Your task to perform on an android device: turn off priority inbox in the gmail app Image 0: 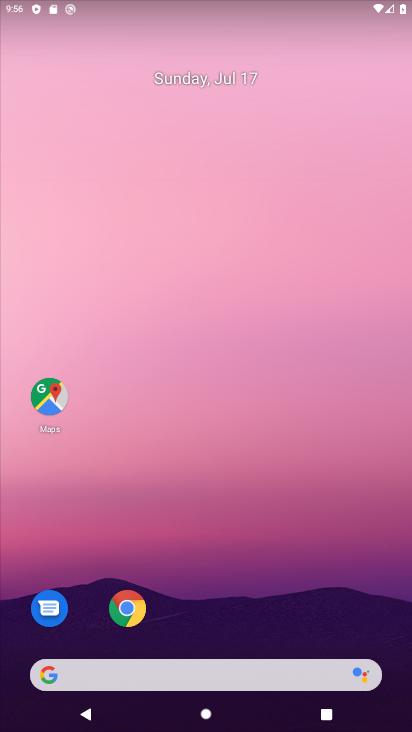
Step 0: drag from (243, 617) to (116, 8)
Your task to perform on an android device: turn off priority inbox in the gmail app Image 1: 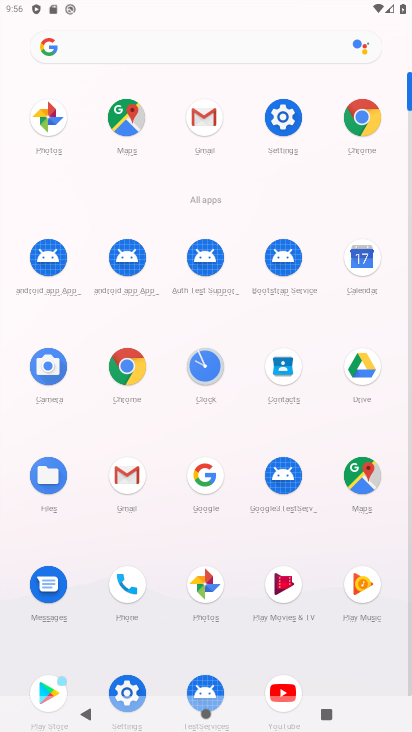
Step 1: click (117, 473)
Your task to perform on an android device: turn off priority inbox in the gmail app Image 2: 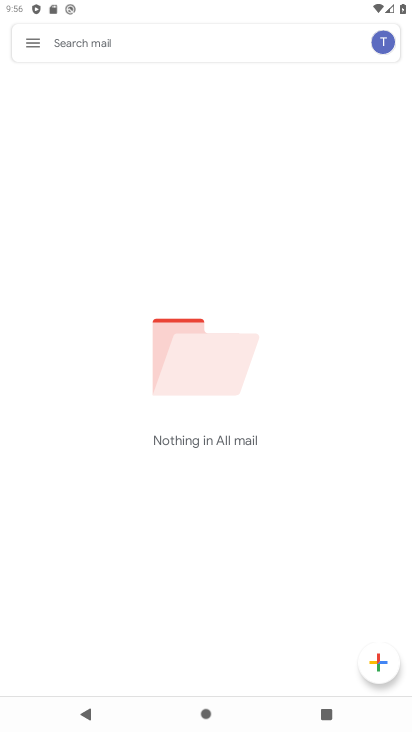
Step 2: click (39, 49)
Your task to perform on an android device: turn off priority inbox in the gmail app Image 3: 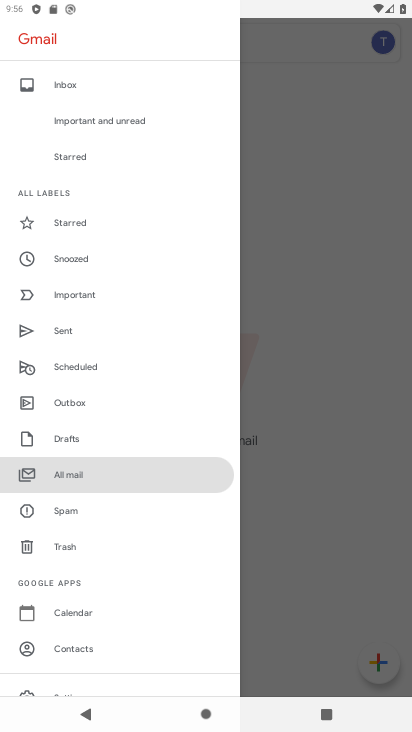
Step 3: drag from (72, 674) to (37, 208)
Your task to perform on an android device: turn off priority inbox in the gmail app Image 4: 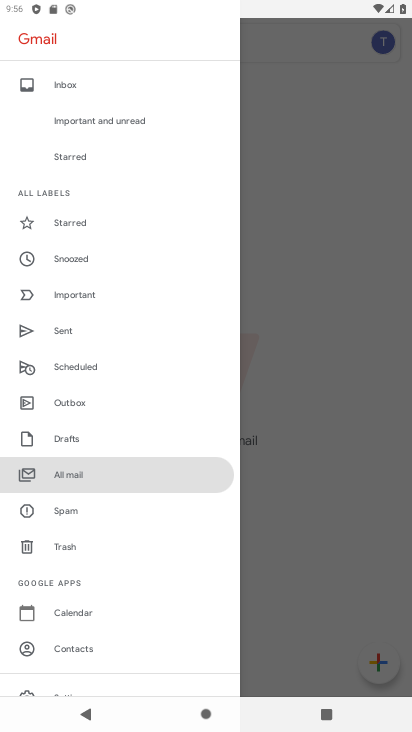
Step 4: drag from (133, 496) to (95, 338)
Your task to perform on an android device: turn off priority inbox in the gmail app Image 5: 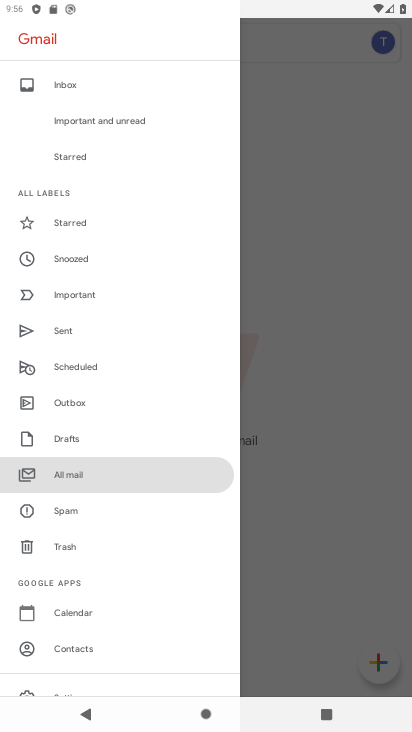
Step 5: drag from (36, 584) to (22, 483)
Your task to perform on an android device: turn off priority inbox in the gmail app Image 6: 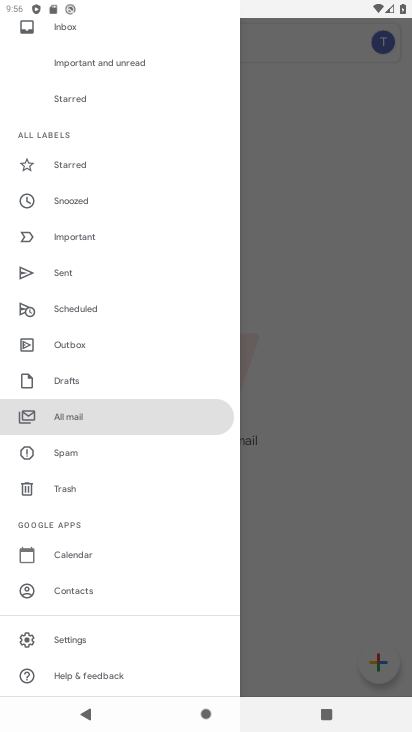
Step 6: click (83, 632)
Your task to perform on an android device: turn off priority inbox in the gmail app Image 7: 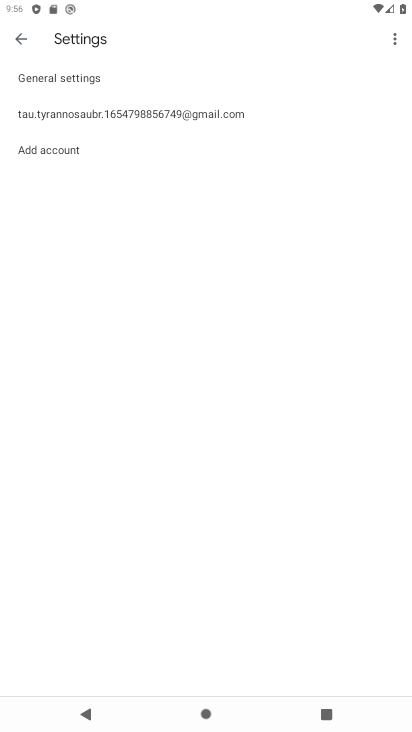
Step 7: click (129, 109)
Your task to perform on an android device: turn off priority inbox in the gmail app Image 8: 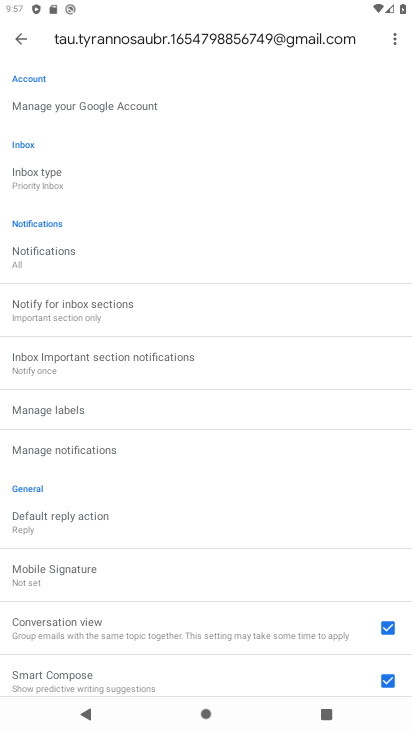
Step 8: click (55, 171)
Your task to perform on an android device: turn off priority inbox in the gmail app Image 9: 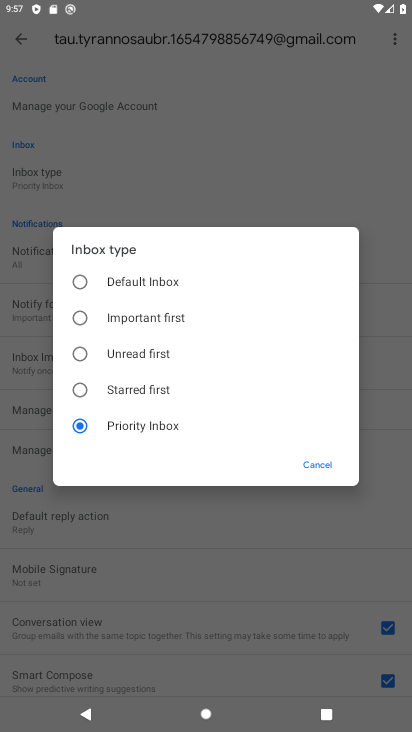
Step 9: click (82, 280)
Your task to perform on an android device: turn off priority inbox in the gmail app Image 10: 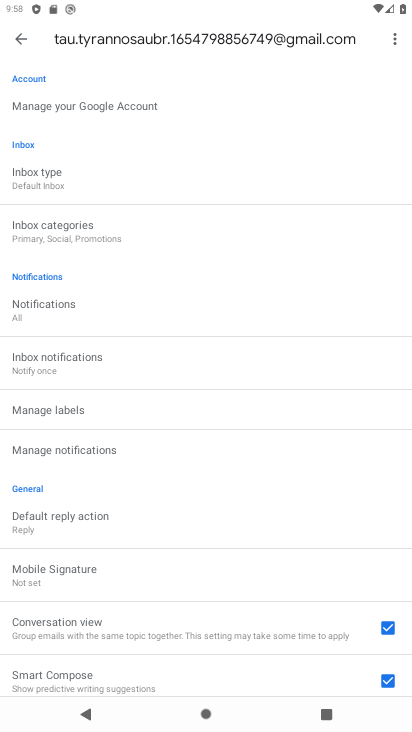
Step 10: task complete